Your task to perform on an android device: turn on sleep mode Image 0: 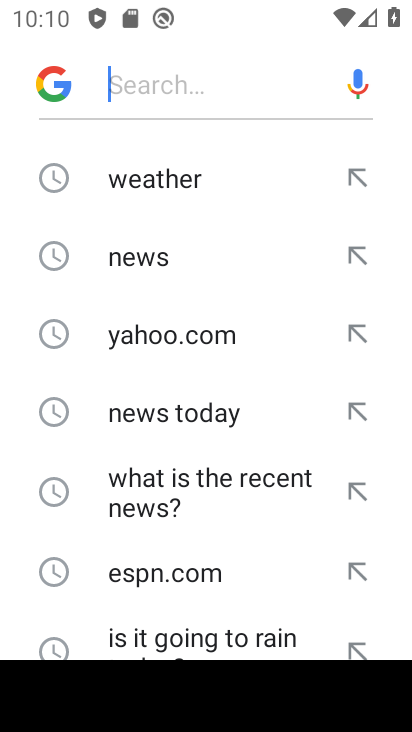
Step 0: press home button
Your task to perform on an android device: turn on sleep mode Image 1: 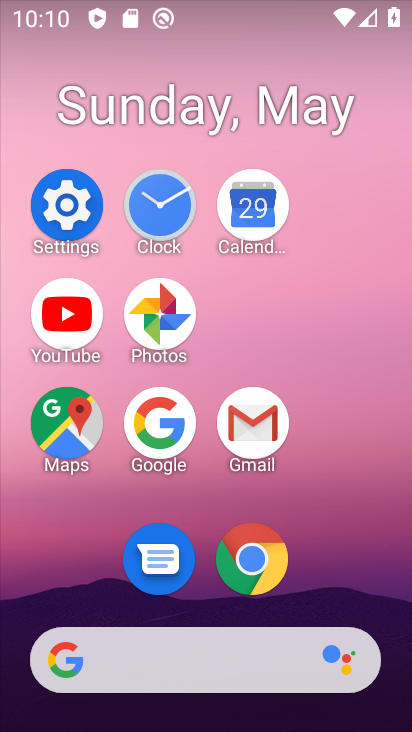
Step 1: click (71, 220)
Your task to perform on an android device: turn on sleep mode Image 2: 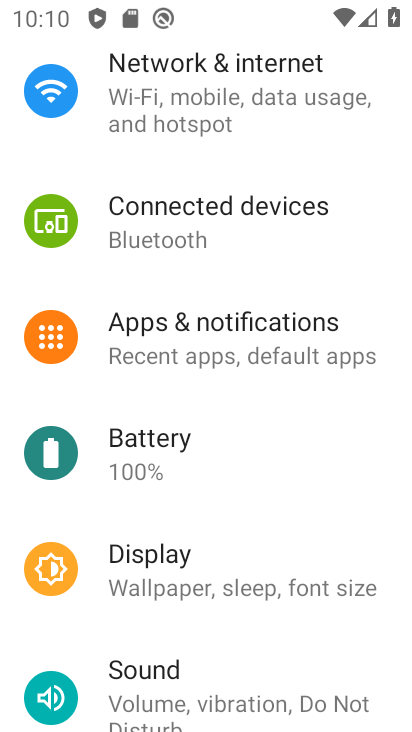
Step 2: click (196, 559)
Your task to perform on an android device: turn on sleep mode Image 3: 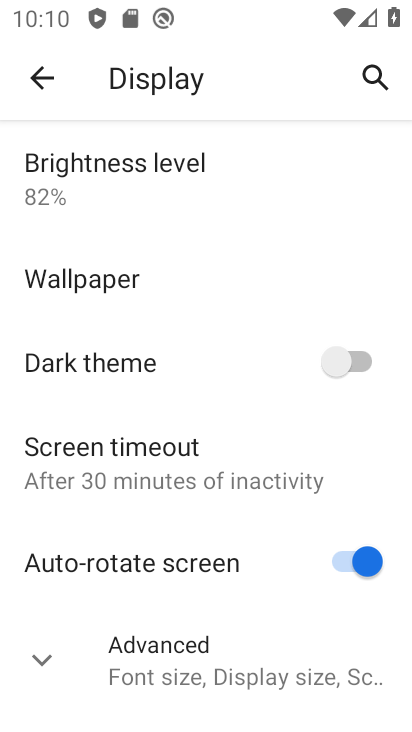
Step 3: click (169, 437)
Your task to perform on an android device: turn on sleep mode Image 4: 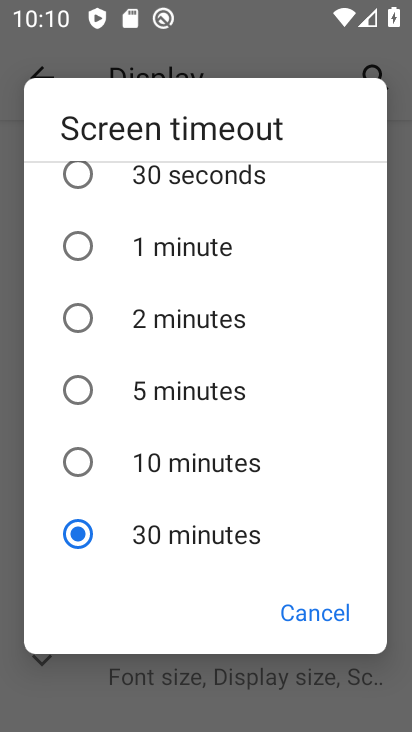
Step 4: task complete